Your task to perform on an android device: Play the last video I watched on Youtube Image 0: 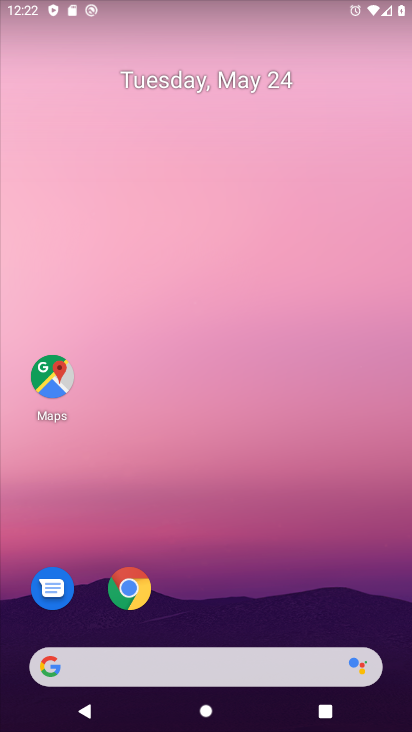
Step 0: drag from (148, 643) to (247, 198)
Your task to perform on an android device: Play the last video I watched on Youtube Image 1: 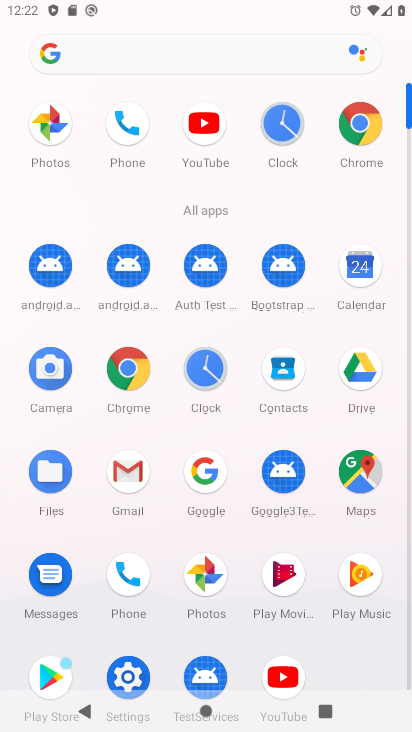
Step 1: click (282, 665)
Your task to perform on an android device: Play the last video I watched on Youtube Image 2: 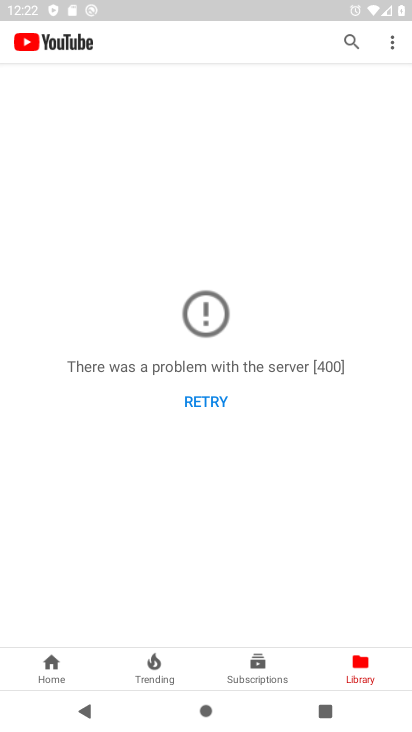
Step 2: task complete